Your task to perform on an android device: set the timer Image 0: 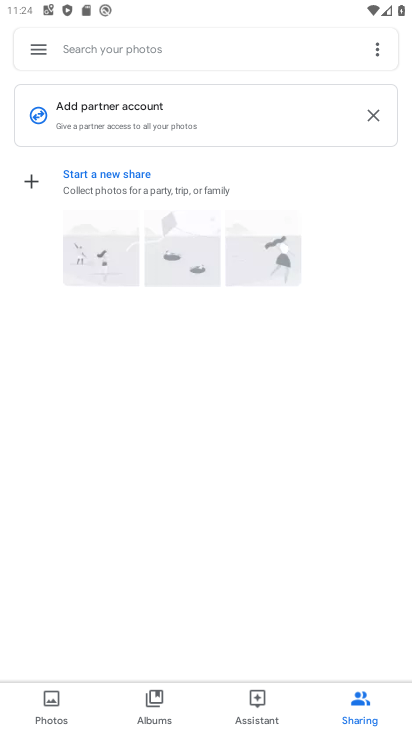
Step 0: press home button
Your task to perform on an android device: set the timer Image 1: 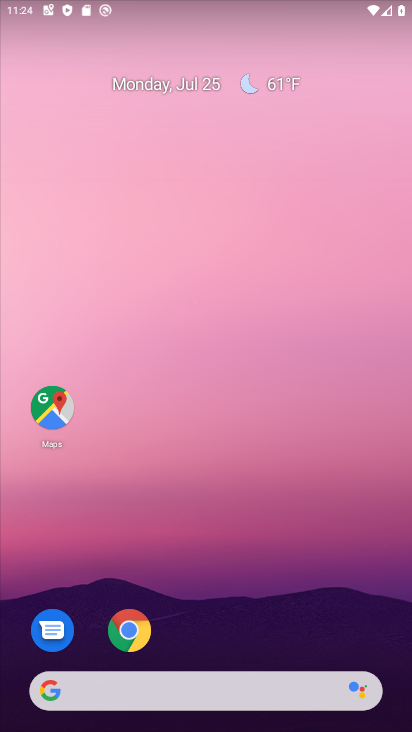
Step 1: drag from (255, 614) to (238, 75)
Your task to perform on an android device: set the timer Image 2: 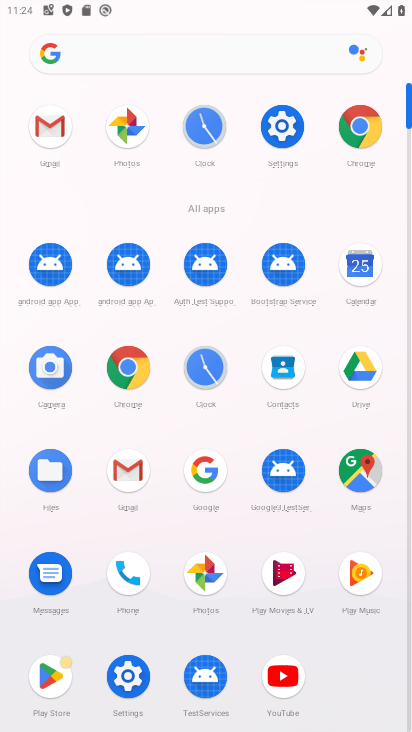
Step 2: click (214, 371)
Your task to perform on an android device: set the timer Image 3: 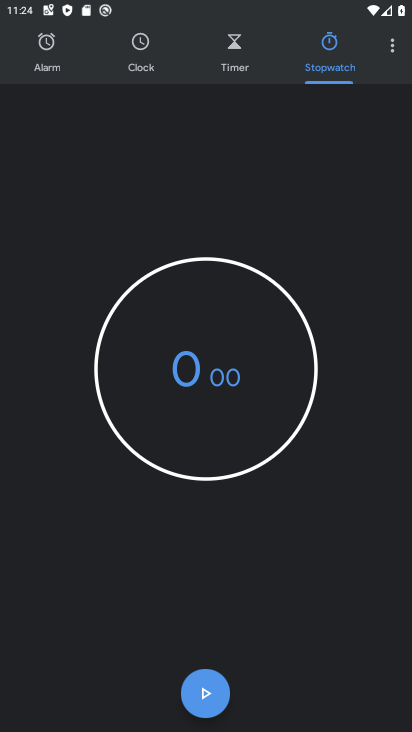
Step 3: click (215, 60)
Your task to perform on an android device: set the timer Image 4: 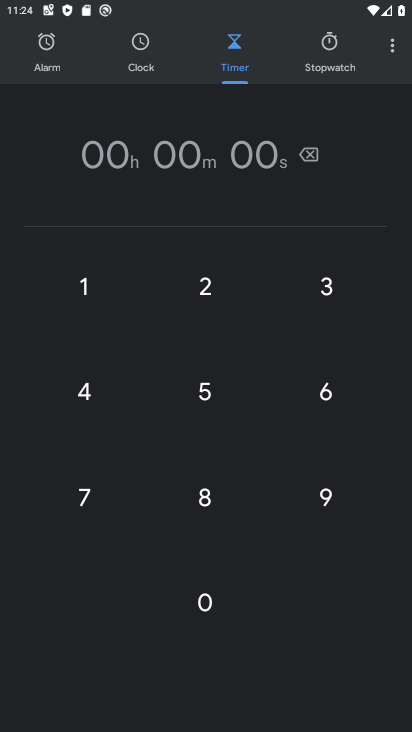
Step 4: click (98, 287)
Your task to perform on an android device: set the timer Image 5: 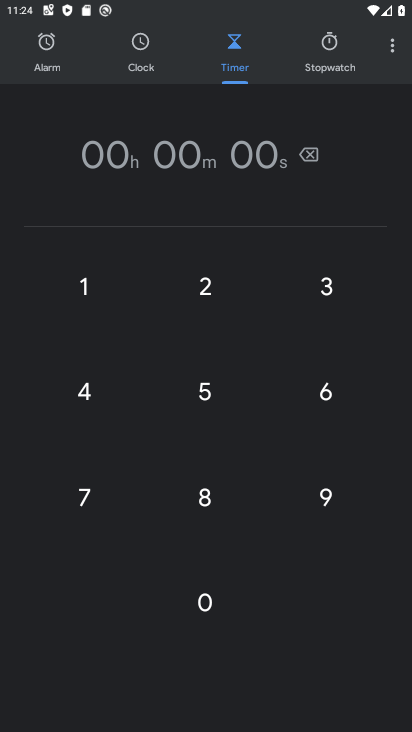
Step 5: click (98, 287)
Your task to perform on an android device: set the timer Image 6: 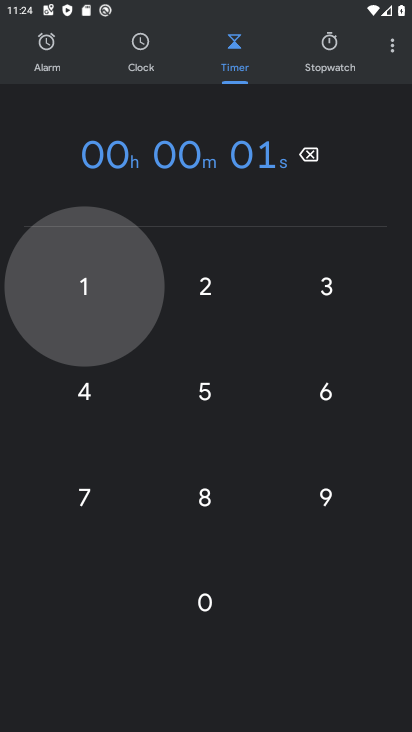
Step 6: click (98, 287)
Your task to perform on an android device: set the timer Image 7: 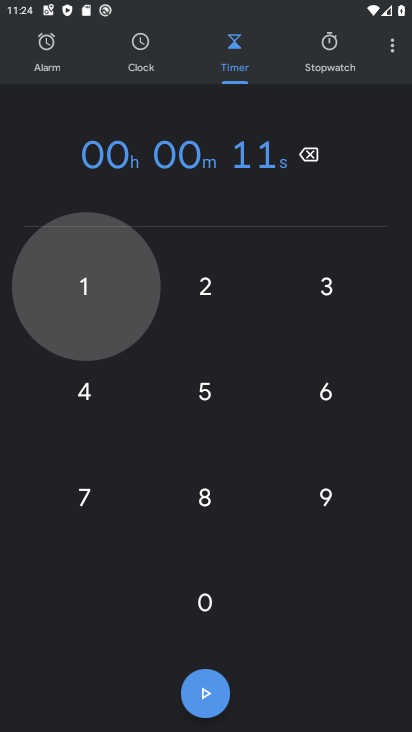
Step 7: click (98, 287)
Your task to perform on an android device: set the timer Image 8: 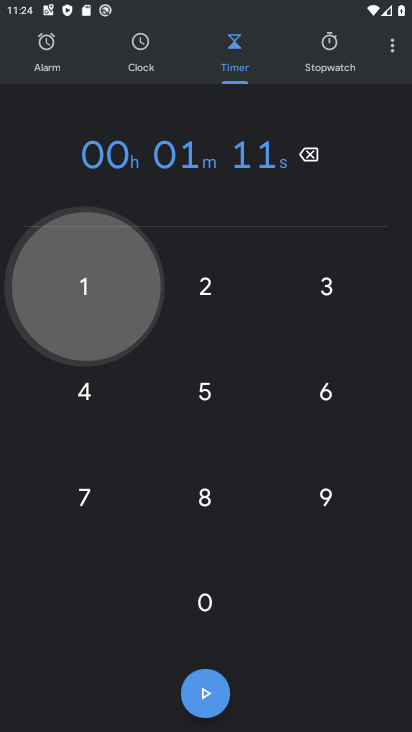
Step 8: click (98, 287)
Your task to perform on an android device: set the timer Image 9: 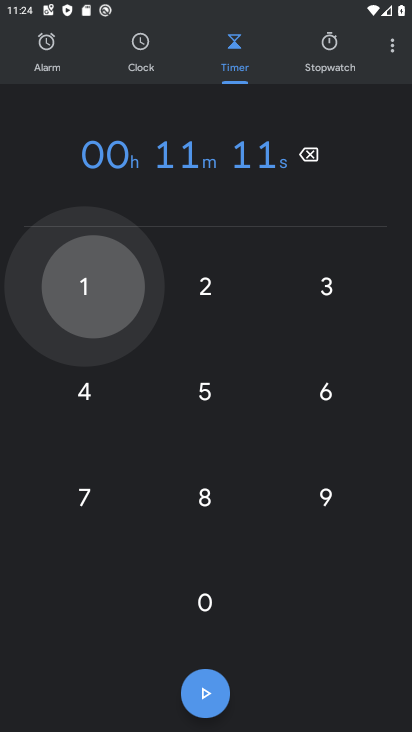
Step 9: click (98, 287)
Your task to perform on an android device: set the timer Image 10: 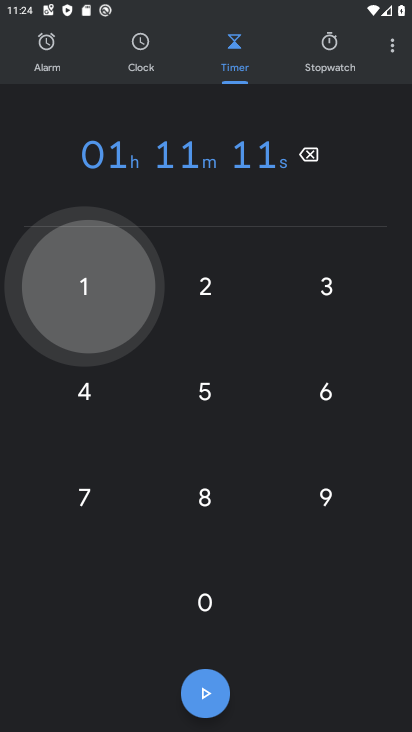
Step 10: click (98, 287)
Your task to perform on an android device: set the timer Image 11: 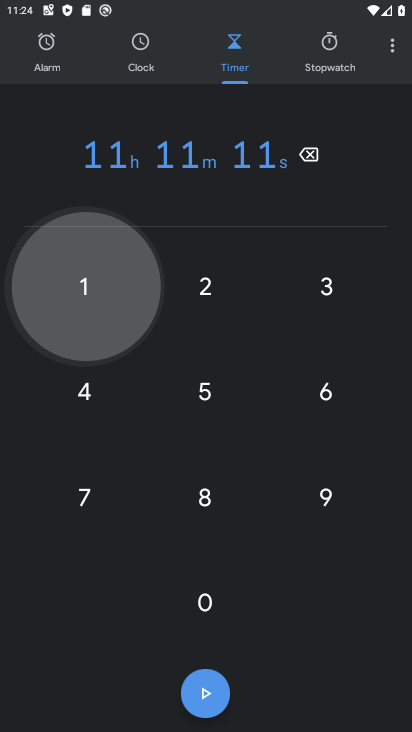
Step 11: click (98, 287)
Your task to perform on an android device: set the timer Image 12: 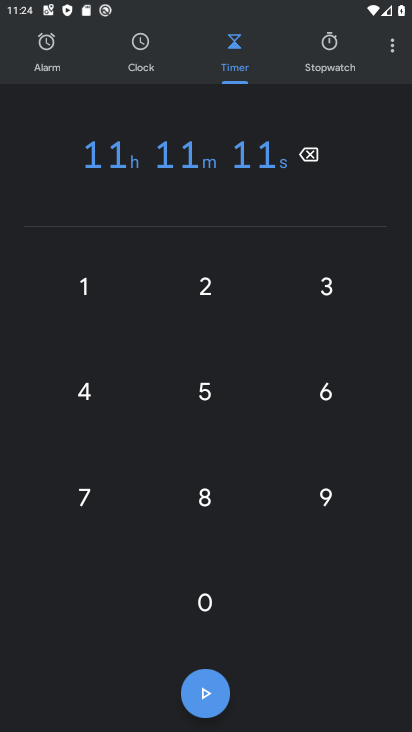
Step 12: click (206, 690)
Your task to perform on an android device: set the timer Image 13: 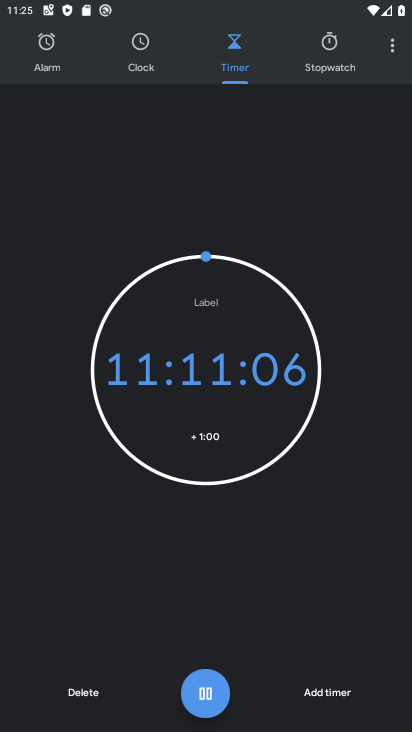
Step 13: task complete